Your task to perform on an android device: Open privacy settings Image 0: 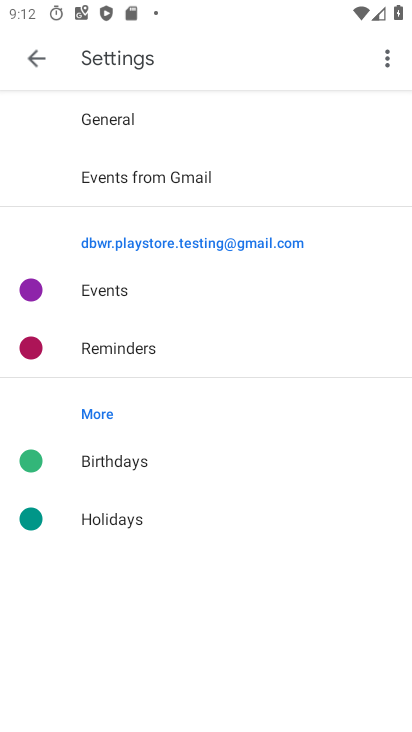
Step 0: press home button
Your task to perform on an android device: Open privacy settings Image 1: 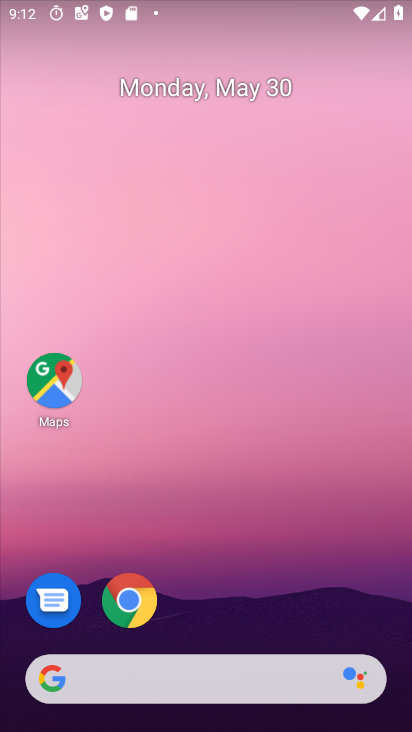
Step 1: drag from (311, 580) to (306, 17)
Your task to perform on an android device: Open privacy settings Image 2: 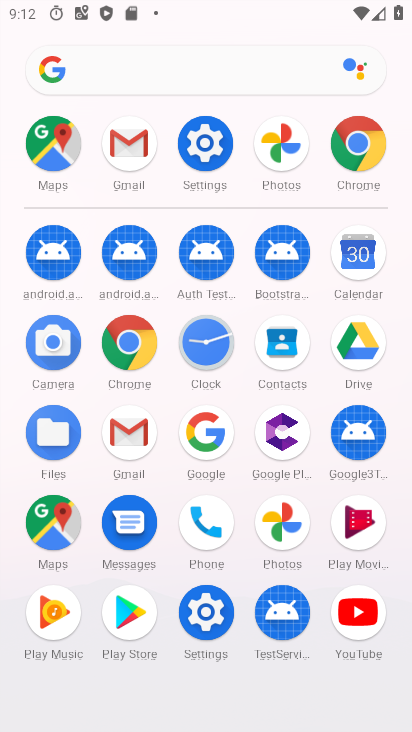
Step 2: click (127, 337)
Your task to perform on an android device: Open privacy settings Image 3: 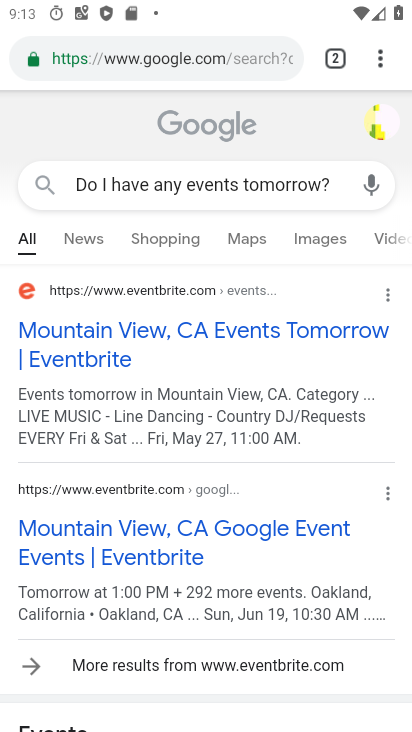
Step 3: drag from (383, 60) to (161, 651)
Your task to perform on an android device: Open privacy settings Image 4: 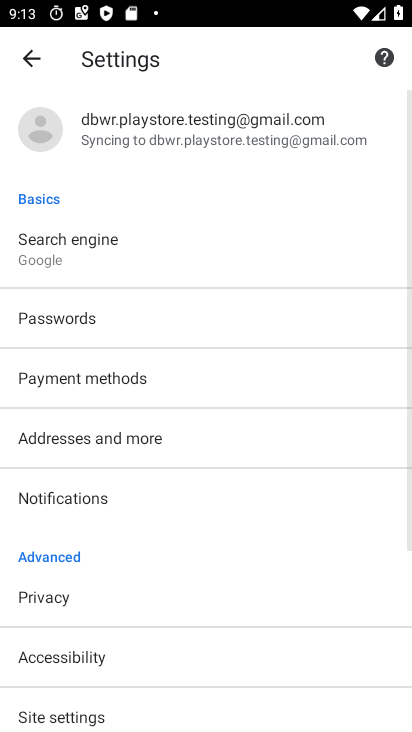
Step 4: click (63, 605)
Your task to perform on an android device: Open privacy settings Image 5: 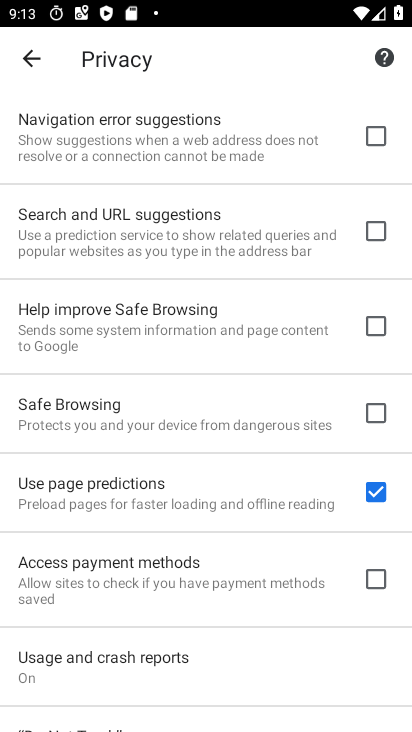
Step 5: task complete